Your task to perform on an android device: Search for seafood restaurants on Google Maps Image 0: 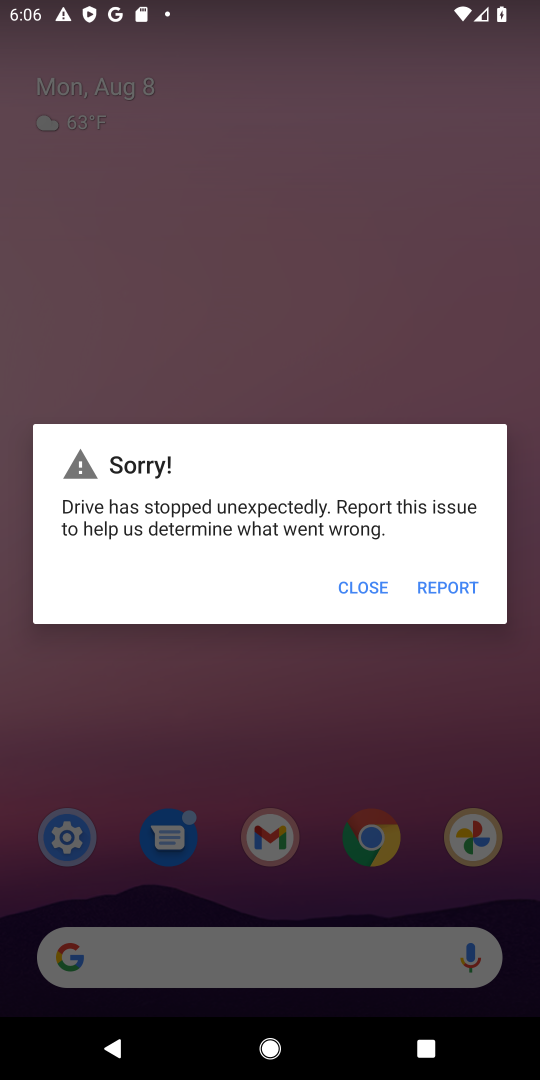
Step 0: press home button
Your task to perform on an android device: Search for seafood restaurants on Google Maps Image 1: 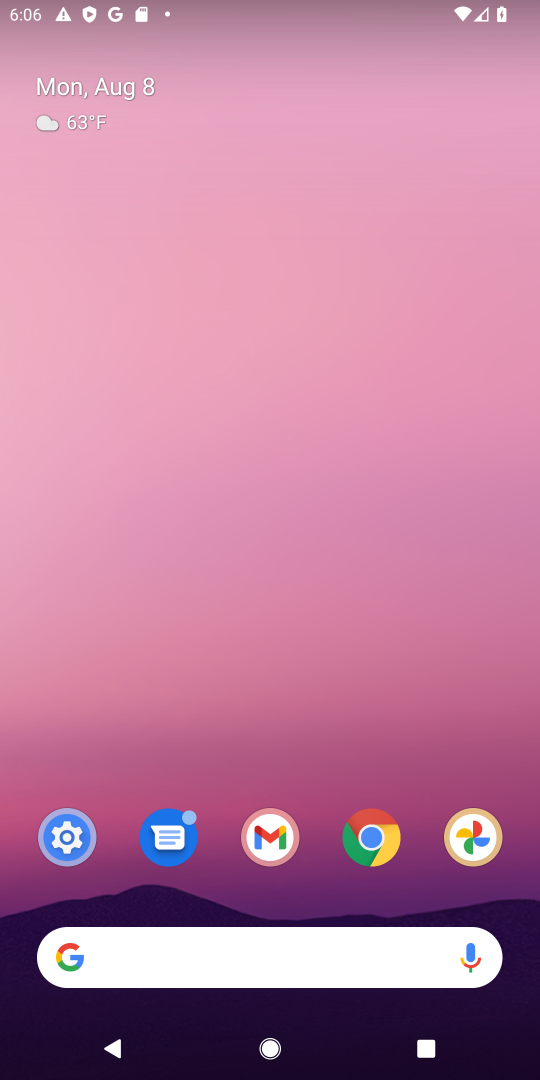
Step 1: drag from (333, 862) to (269, 23)
Your task to perform on an android device: Search for seafood restaurants on Google Maps Image 2: 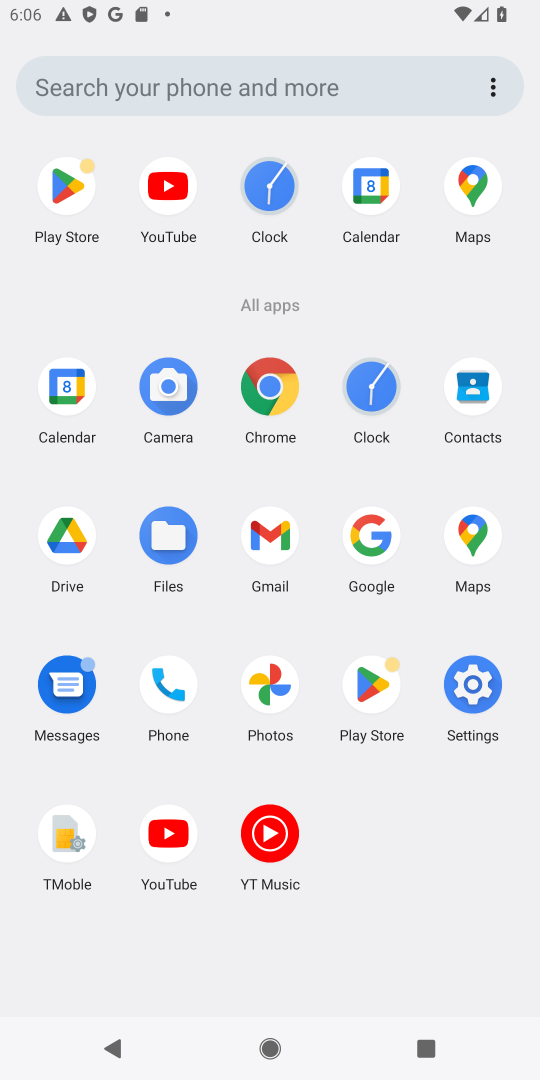
Step 2: click (474, 545)
Your task to perform on an android device: Search for seafood restaurants on Google Maps Image 3: 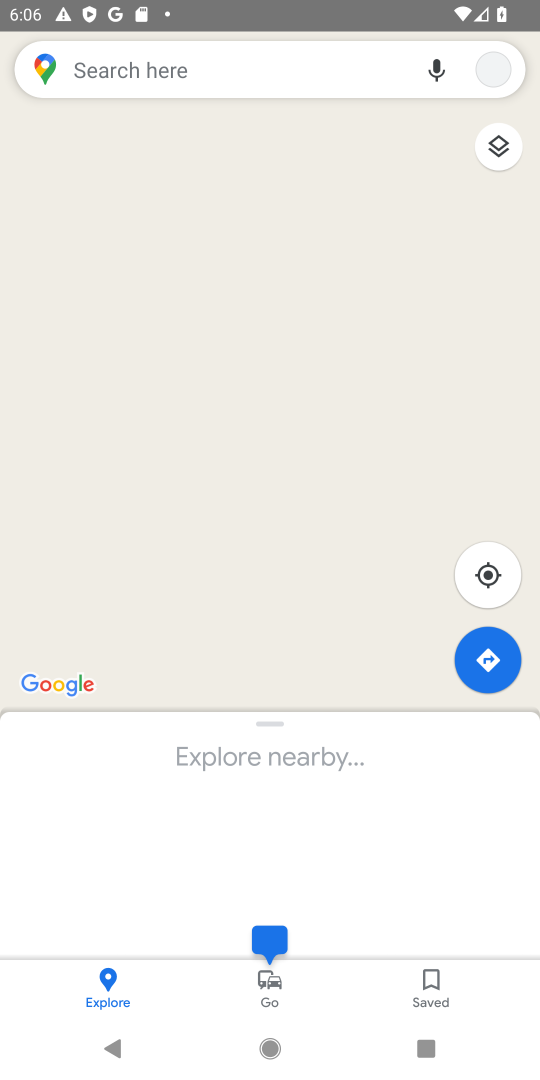
Step 3: click (206, 86)
Your task to perform on an android device: Search for seafood restaurants on Google Maps Image 4: 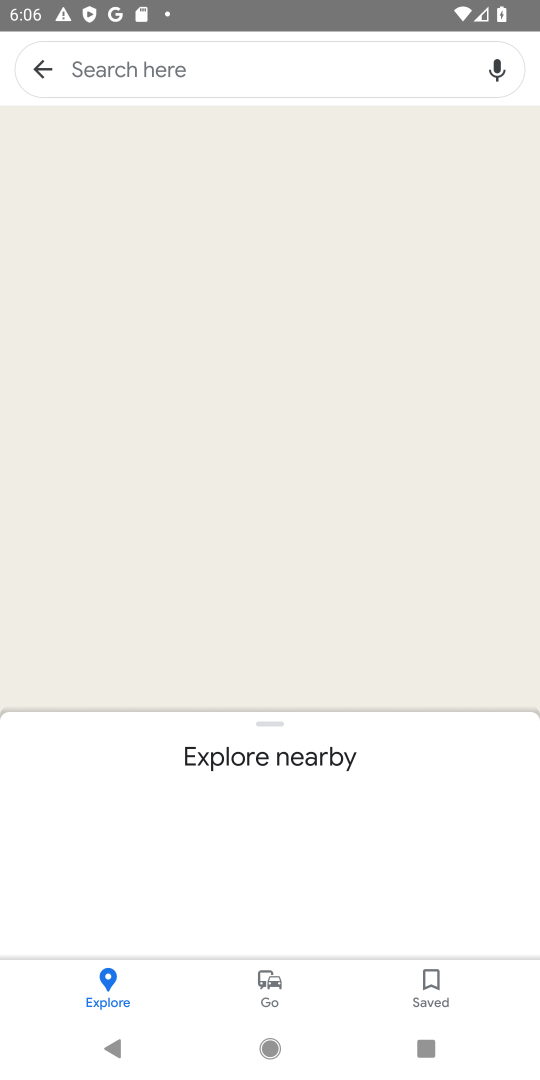
Step 4: click (219, 68)
Your task to perform on an android device: Search for seafood restaurants on Google Maps Image 5: 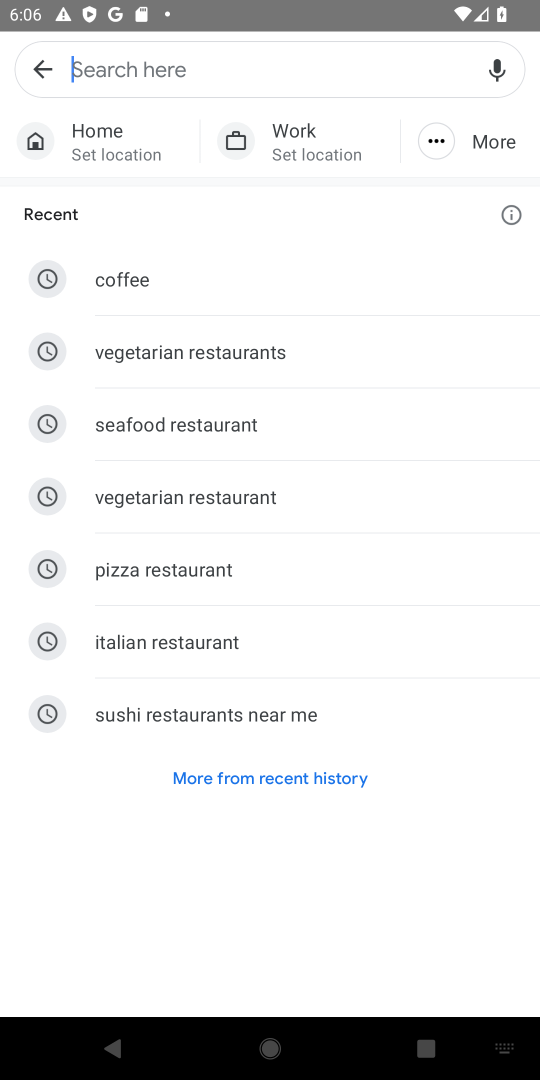
Step 5: click (121, 459)
Your task to perform on an android device: Search for seafood restaurants on Google Maps Image 6: 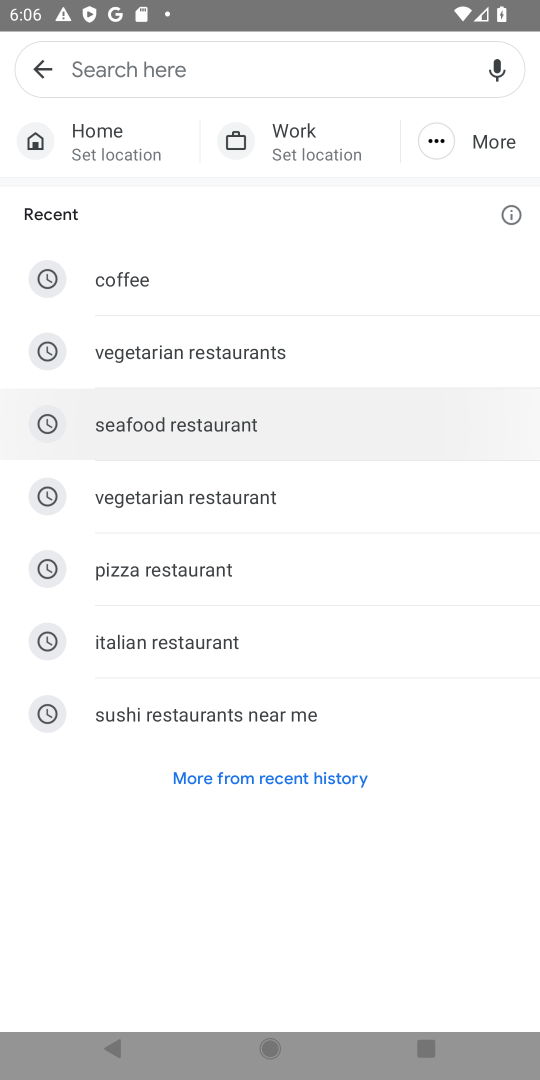
Step 6: click (111, 429)
Your task to perform on an android device: Search for seafood restaurants on Google Maps Image 7: 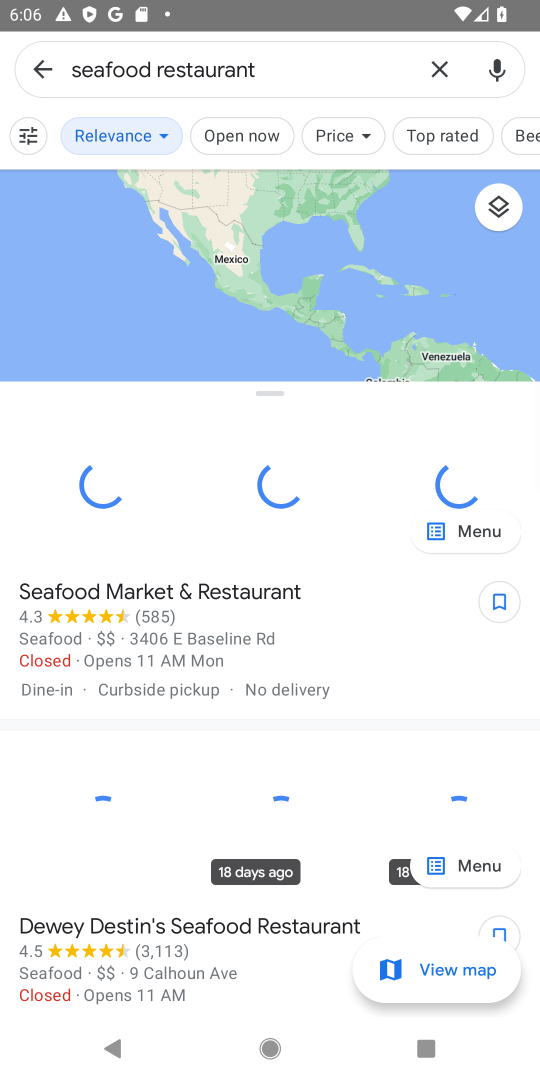
Step 7: task complete